Your task to perform on an android device: Go to internet settings Image 0: 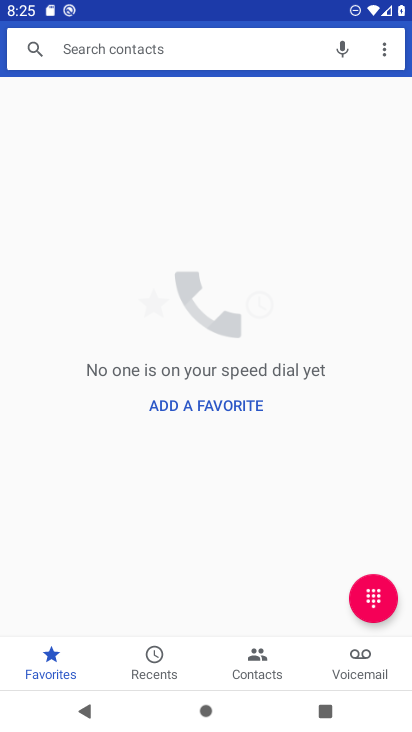
Step 0: press home button
Your task to perform on an android device: Go to internet settings Image 1: 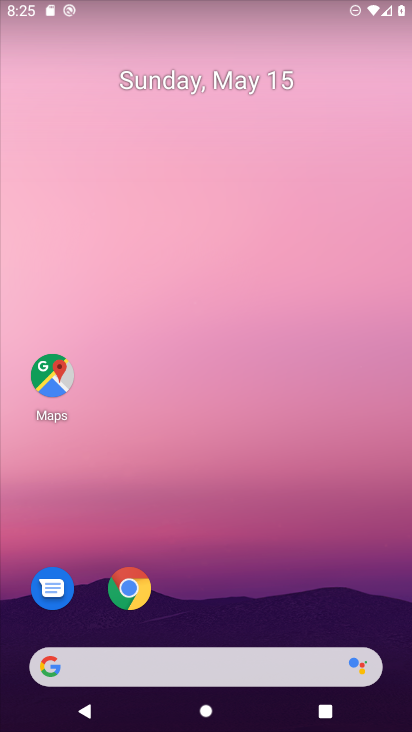
Step 1: drag from (198, 593) to (195, 521)
Your task to perform on an android device: Go to internet settings Image 2: 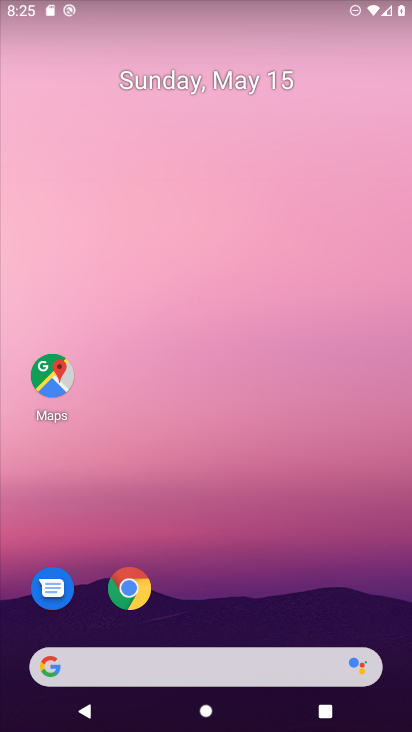
Step 2: click (201, 292)
Your task to perform on an android device: Go to internet settings Image 3: 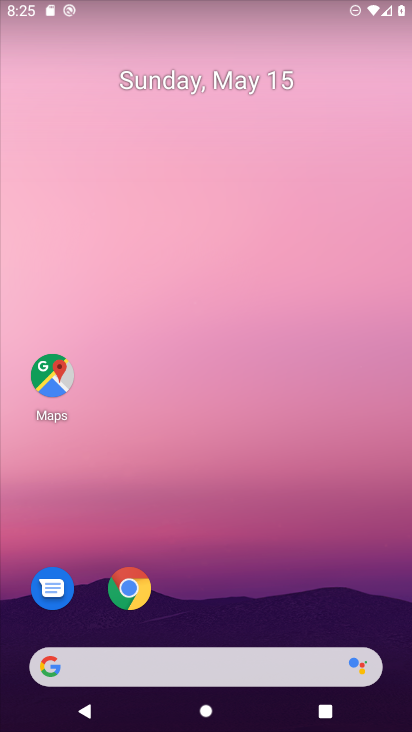
Step 3: drag from (225, 592) to (224, 146)
Your task to perform on an android device: Go to internet settings Image 4: 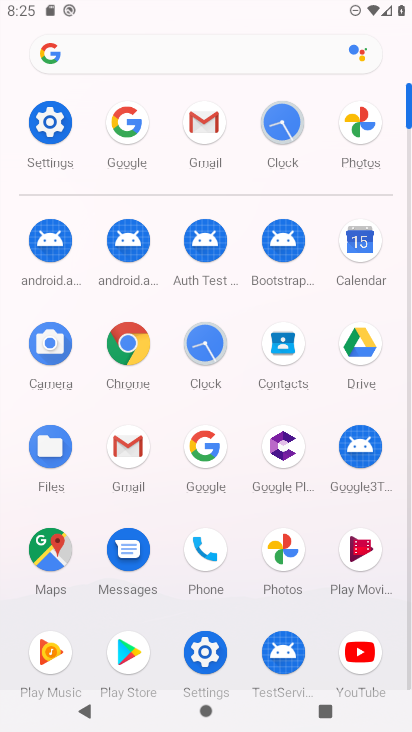
Step 4: click (46, 118)
Your task to perform on an android device: Go to internet settings Image 5: 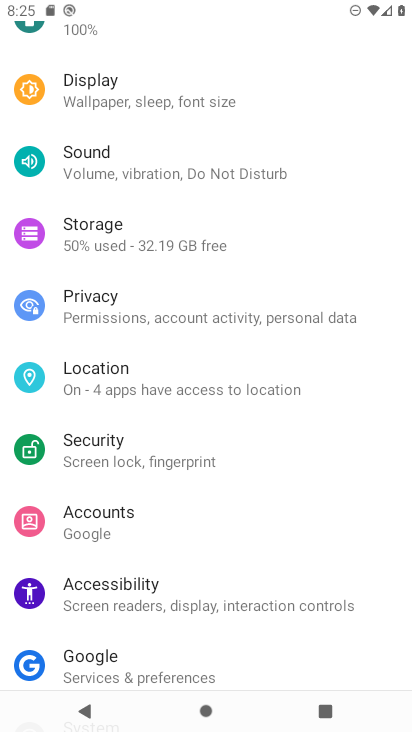
Step 5: drag from (126, 340) to (134, 579)
Your task to perform on an android device: Go to internet settings Image 6: 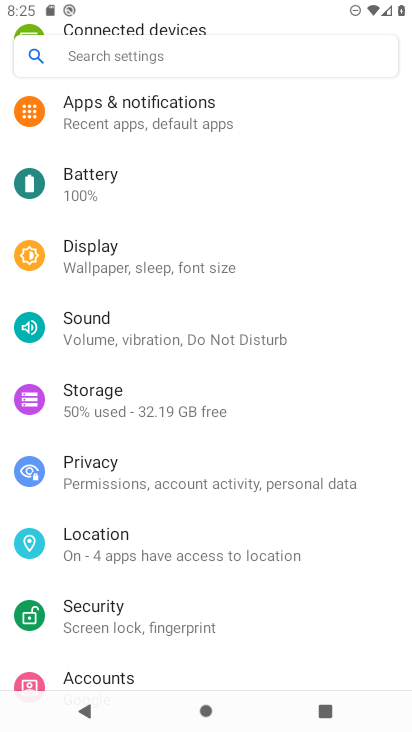
Step 6: drag from (128, 155) to (137, 729)
Your task to perform on an android device: Go to internet settings Image 7: 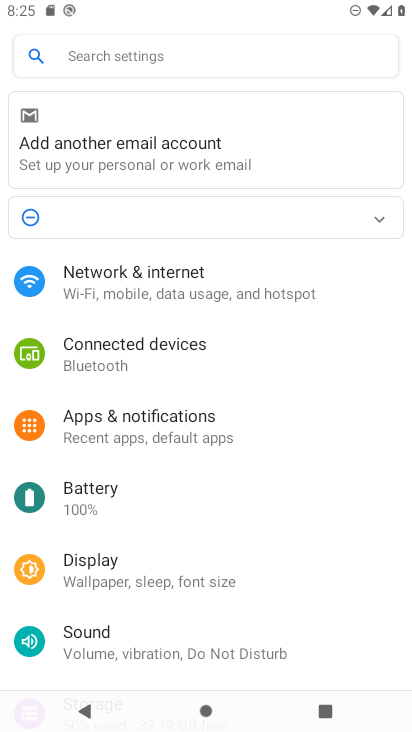
Step 7: click (152, 283)
Your task to perform on an android device: Go to internet settings Image 8: 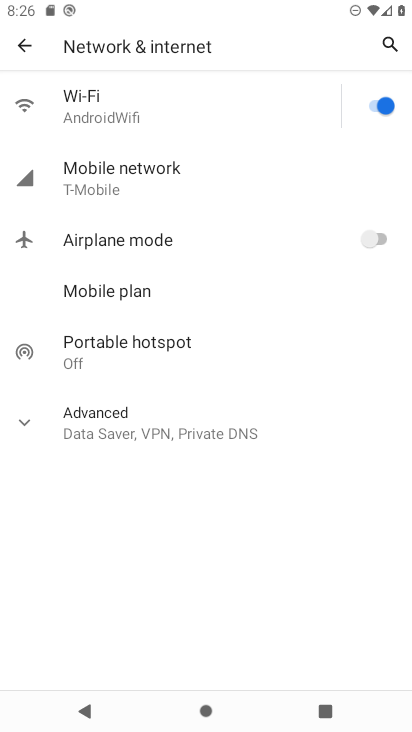
Step 8: click (27, 423)
Your task to perform on an android device: Go to internet settings Image 9: 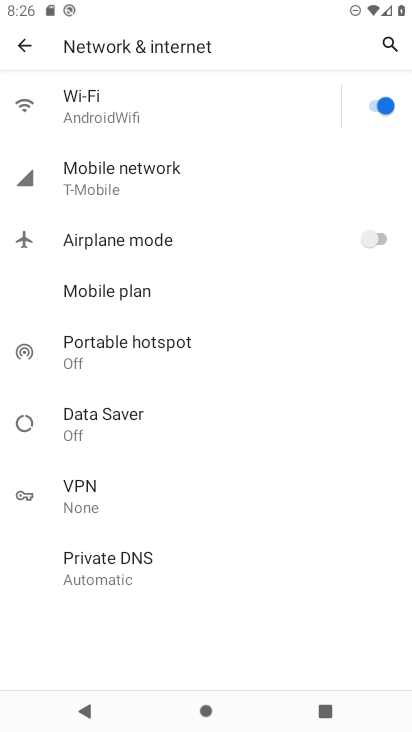
Step 9: task complete